Your task to perform on an android device: empty trash in google photos Image 0: 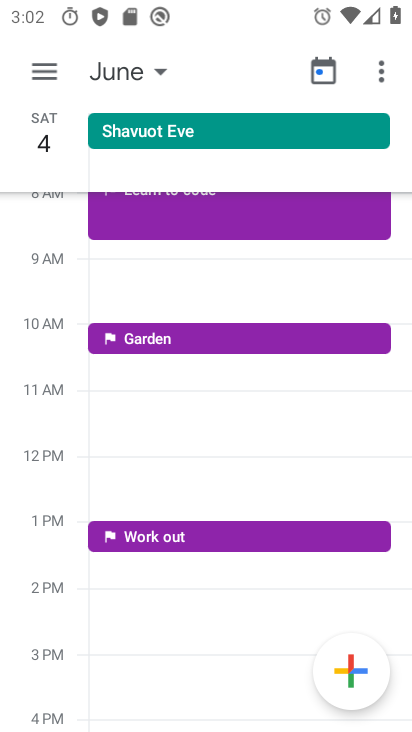
Step 0: press home button
Your task to perform on an android device: empty trash in google photos Image 1: 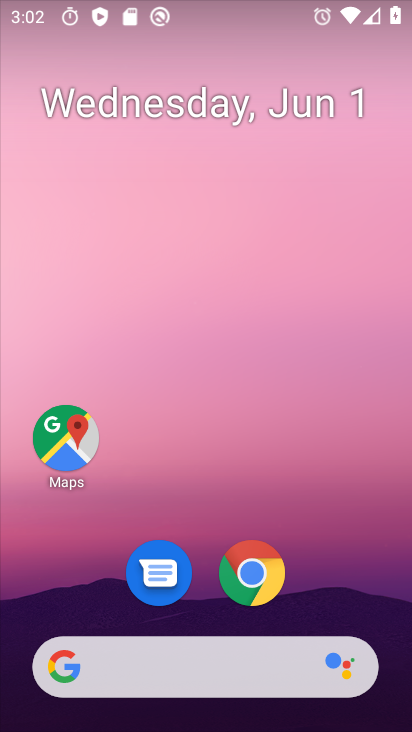
Step 1: drag from (204, 627) to (219, 270)
Your task to perform on an android device: empty trash in google photos Image 2: 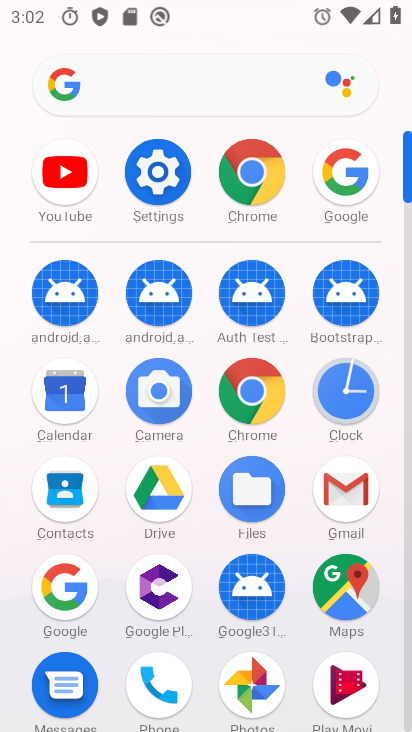
Step 2: click (248, 667)
Your task to perform on an android device: empty trash in google photos Image 3: 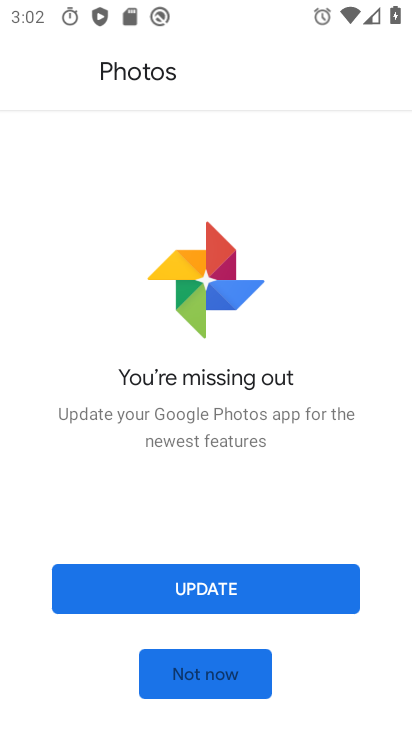
Step 3: click (202, 691)
Your task to perform on an android device: empty trash in google photos Image 4: 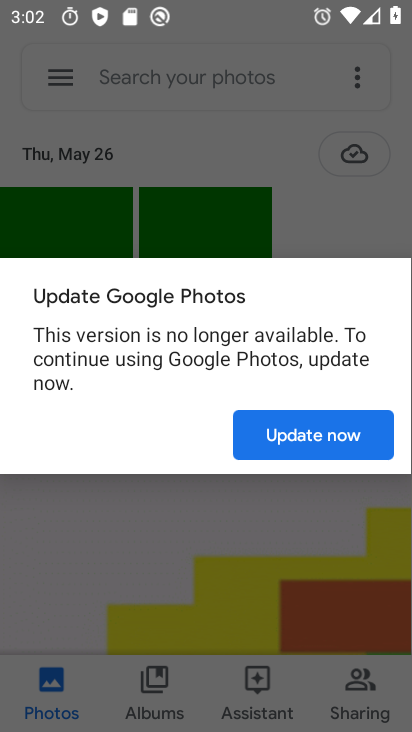
Step 4: click (273, 437)
Your task to perform on an android device: empty trash in google photos Image 5: 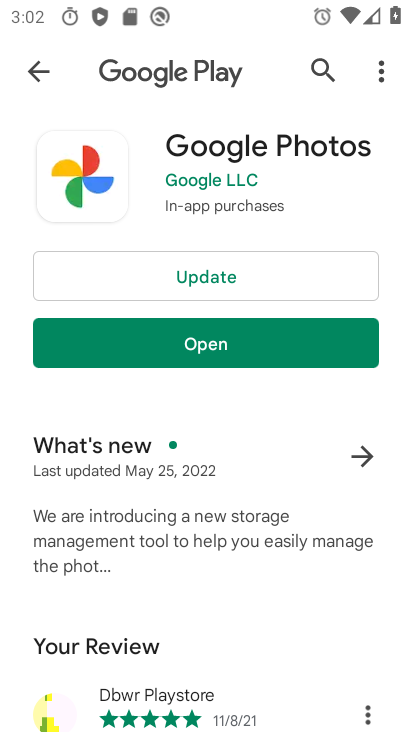
Step 5: click (181, 344)
Your task to perform on an android device: empty trash in google photos Image 6: 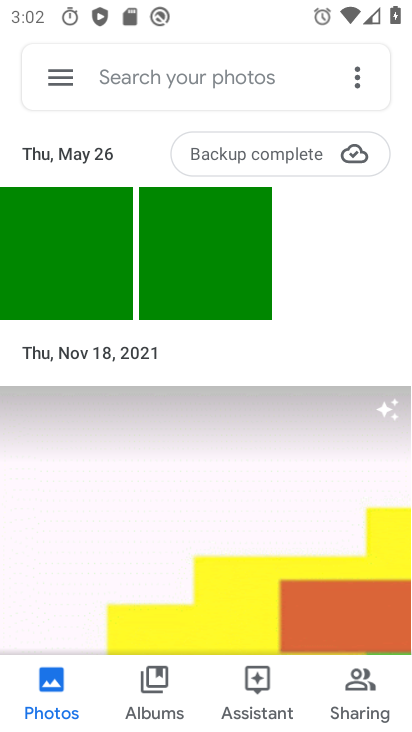
Step 6: click (61, 82)
Your task to perform on an android device: empty trash in google photos Image 7: 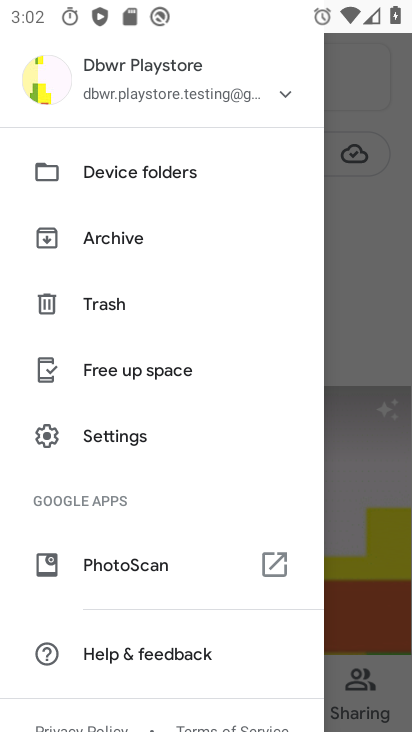
Step 7: click (120, 308)
Your task to perform on an android device: empty trash in google photos Image 8: 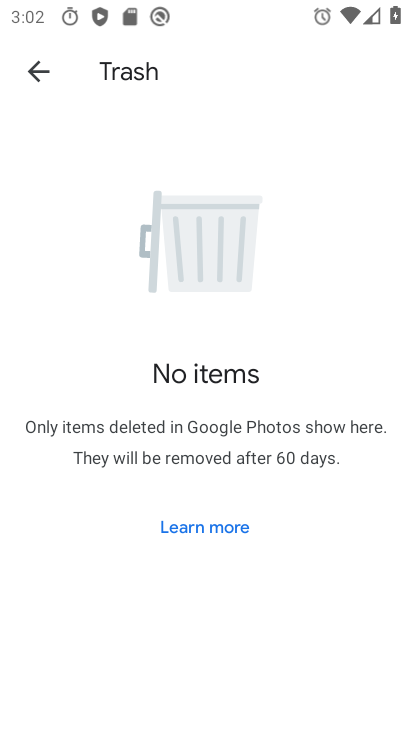
Step 8: task complete